Your task to perform on an android device: Open Google Image 0: 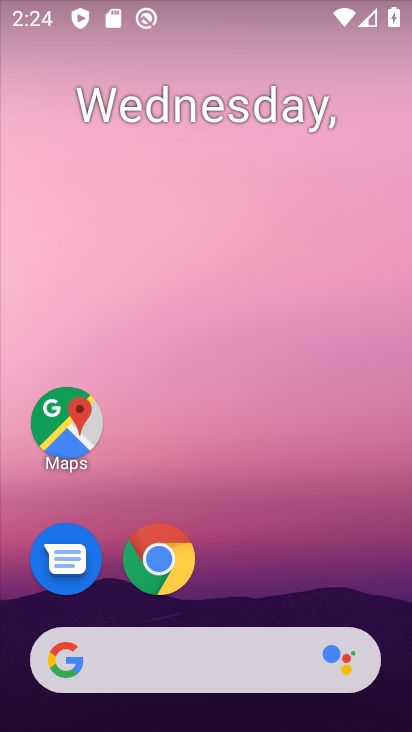
Step 0: drag from (228, 570) to (236, 51)
Your task to perform on an android device: Open Google Image 1: 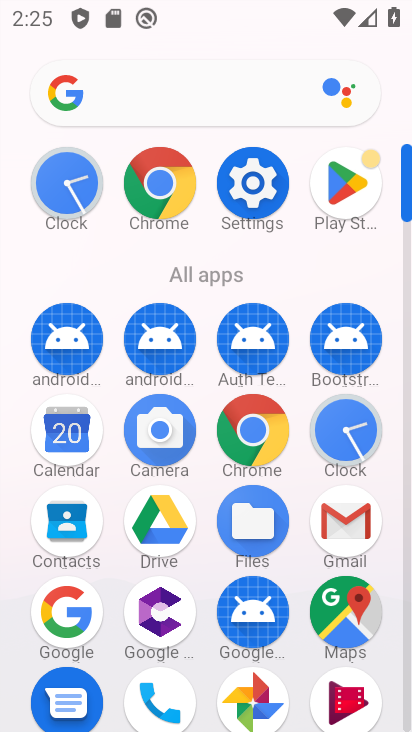
Step 1: click (81, 607)
Your task to perform on an android device: Open Google Image 2: 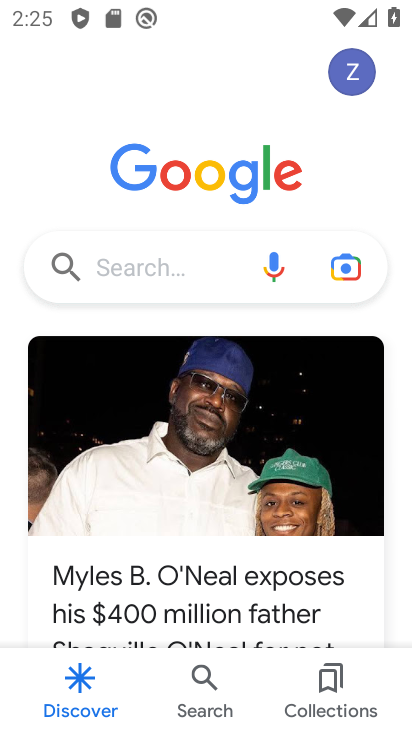
Step 2: task complete